Your task to perform on an android device: Go to CNN.com Image 0: 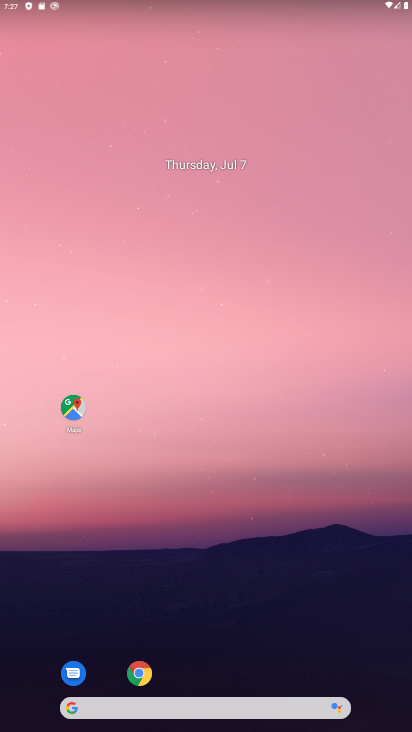
Step 0: drag from (257, 634) to (258, 165)
Your task to perform on an android device: Go to CNN.com Image 1: 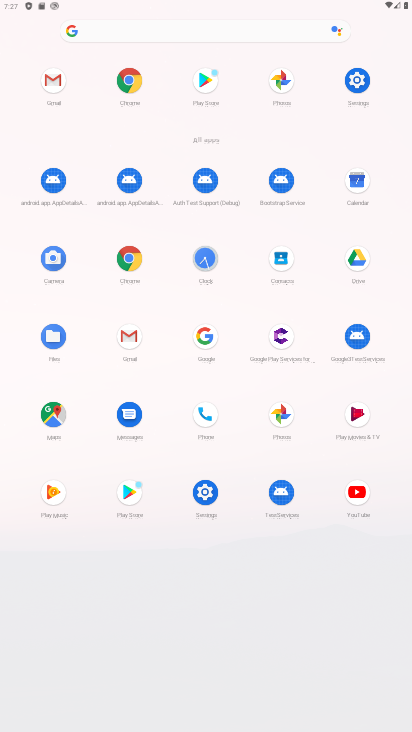
Step 1: click (129, 82)
Your task to perform on an android device: Go to CNN.com Image 2: 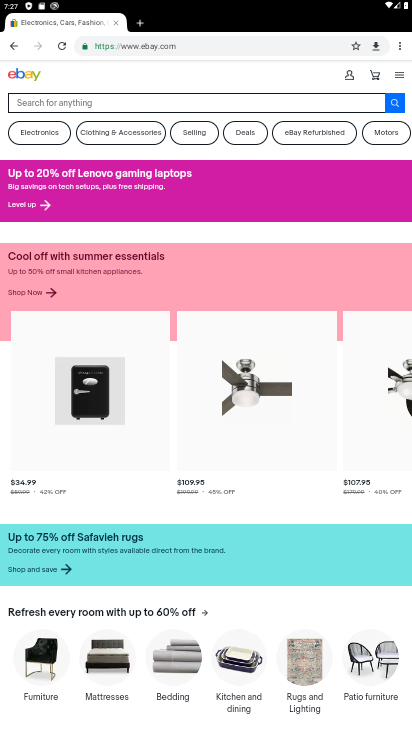
Step 2: click (223, 49)
Your task to perform on an android device: Go to CNN.com Image 3: 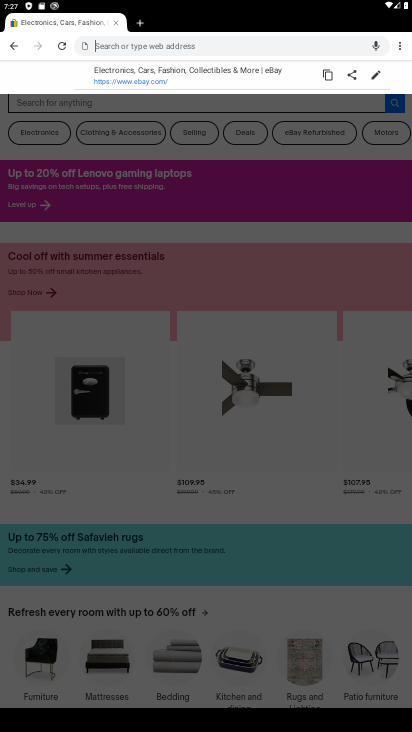
Step 3: type "CNN.com"
Your task to perform on an android device: Go to CNN.com Image 4: 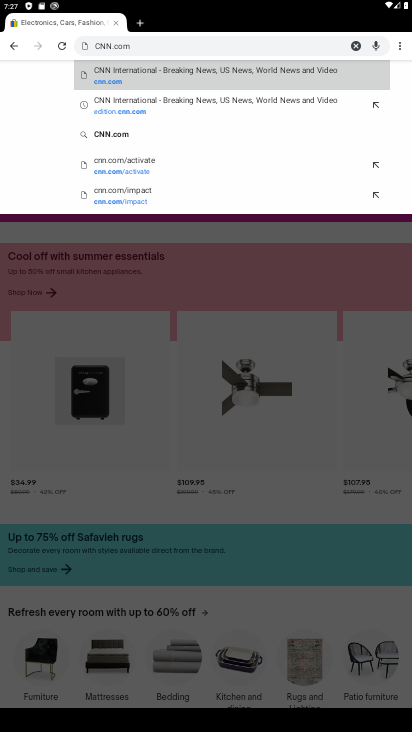
Step 4: click (119, 135)
Your task to perform on an android device: Go to CNN.com Image 5: 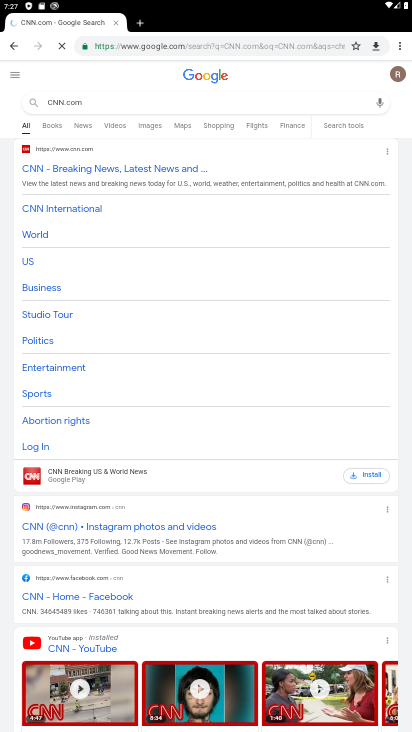
Step 5: click (121, 168)
Your task to perform on an android device: Go to CNN.com Image 6: 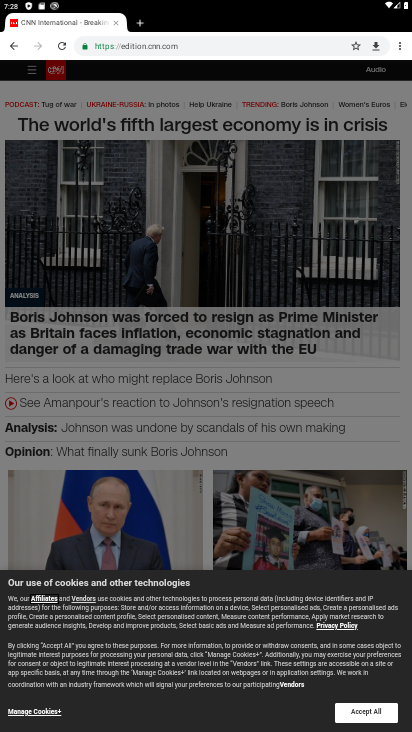
Step 6: click (366, 712)
Your task to perform on an android device: Go to CNN.com Image 7: 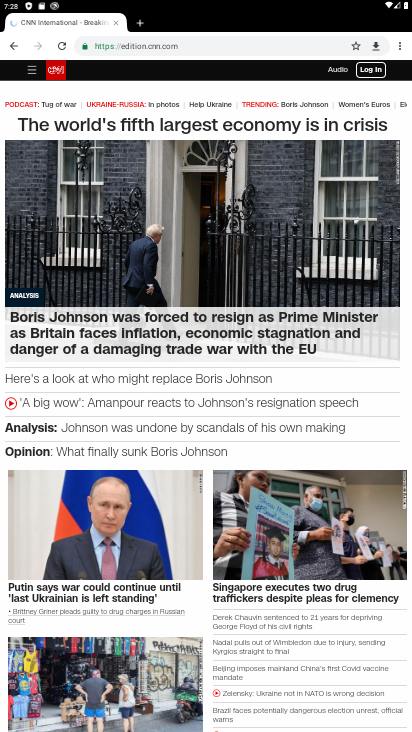
Step 7: task complete